Your task to perform on an android device: Go to Android settings Image 0: 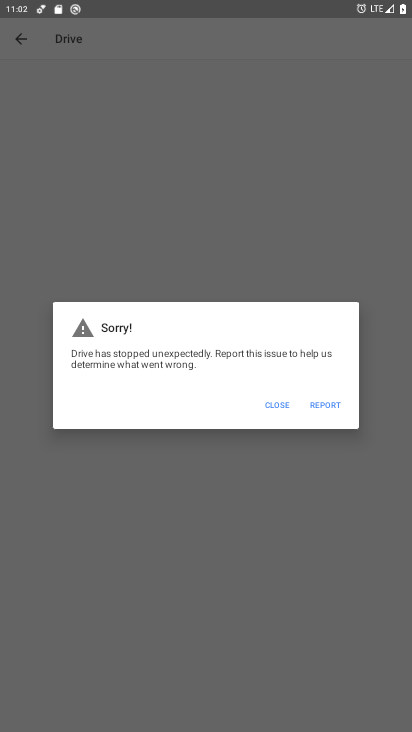
Step 0: press home button
Your task to perform on an android device: Go to Android settings Image 1: 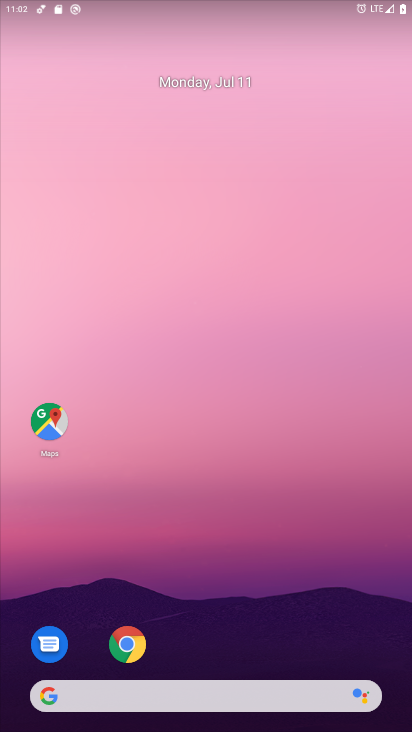
Step 1: drag from (274, 606) to (364, 71)
Your task to perform on an android device: Go to Android settings Image 2: 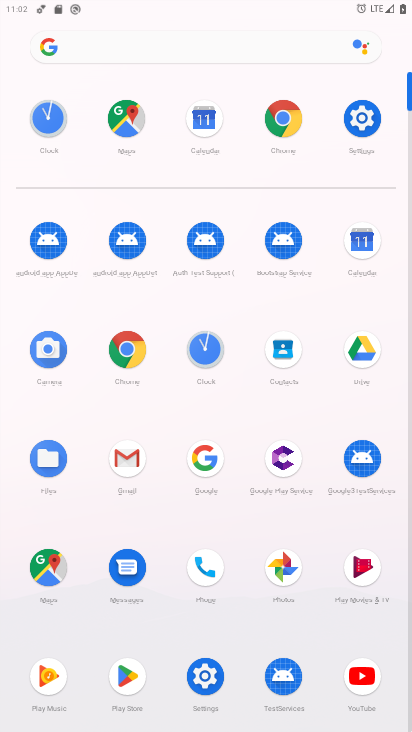
Step 2: click (359, 109)
Your task to perform on an android device: Go to Android settings Image 3: 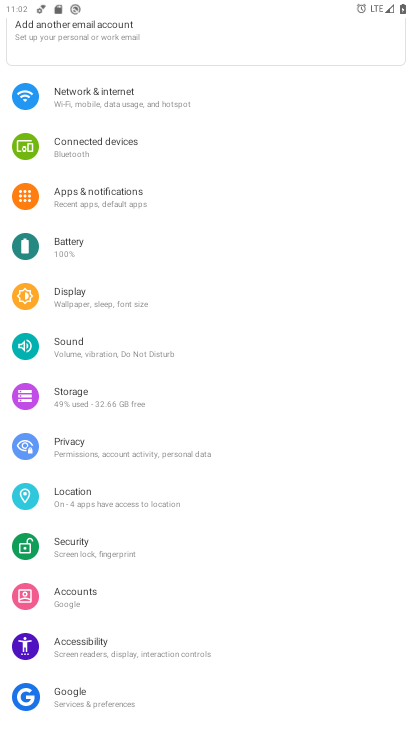
Step 3: task complete